Your task to perform on an android device: See recent photos Image 0: 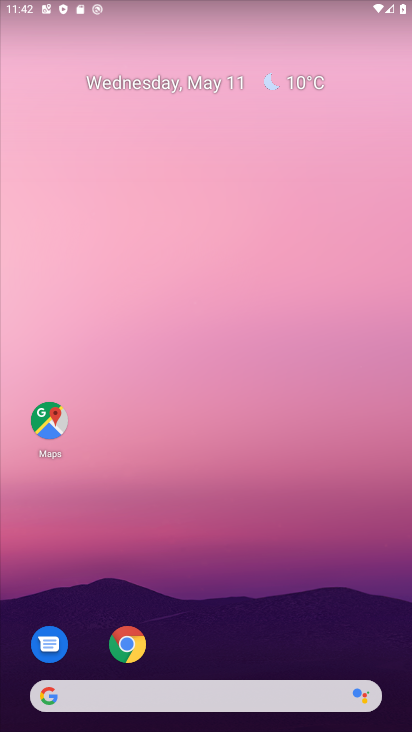
Step 0: press home button
Your task to perform on an android device: See recent photos Image 1: 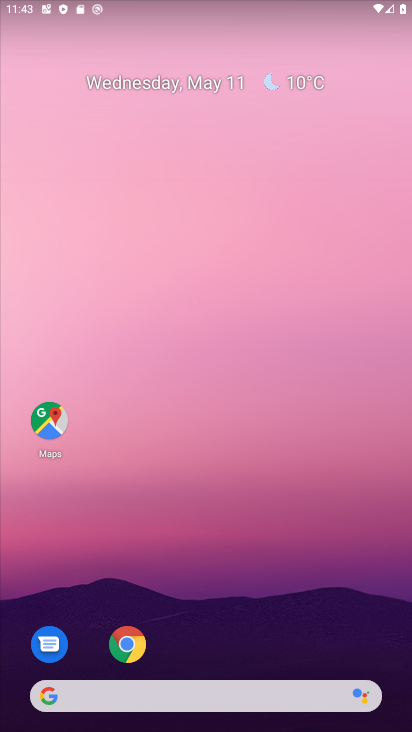
Step 1: drag from (311, 585) to (300, 150)
Your task to perform on an android device: See recent photos Image 2: 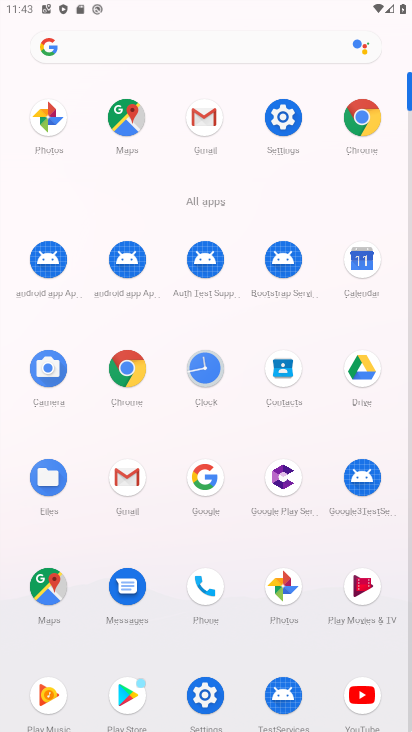
Step 2: click (46, 105)
Your task to perform on an android device: See recent photos Image 3: 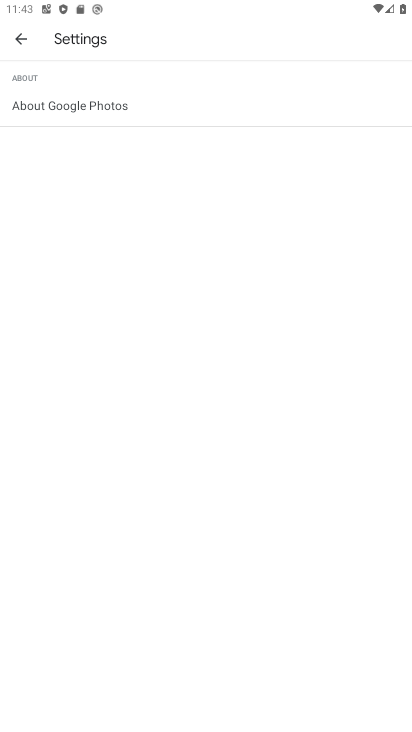
Step 3: click (19, 45)
Your task to perform on an android device: See recent photos Image 4: 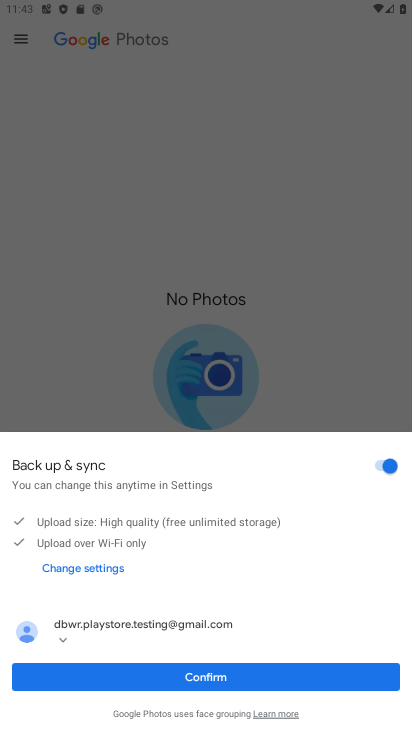
Step 4: click (26, 350)
Your task to perform on an android device: See recent photos Image 5: 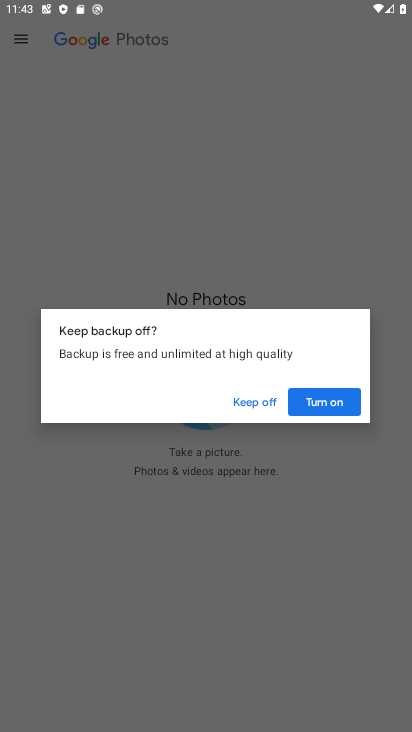
Step 5: click (307, 400)
Your task to perform on an android device: See recent photos Image 6: 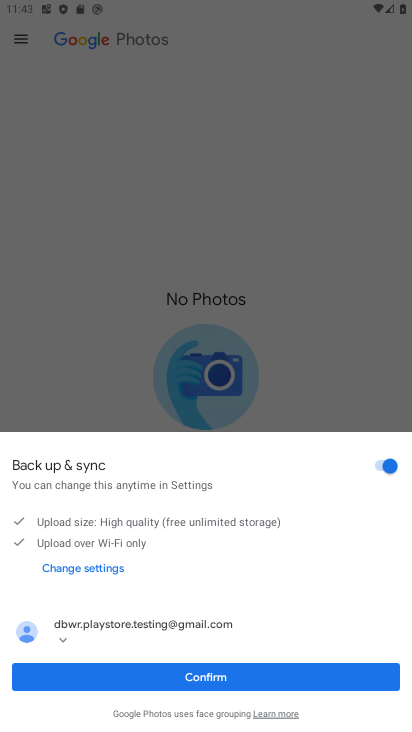
Step 6: click (356, 686)
Your task to perform on an android device: See recent photos Image 7: 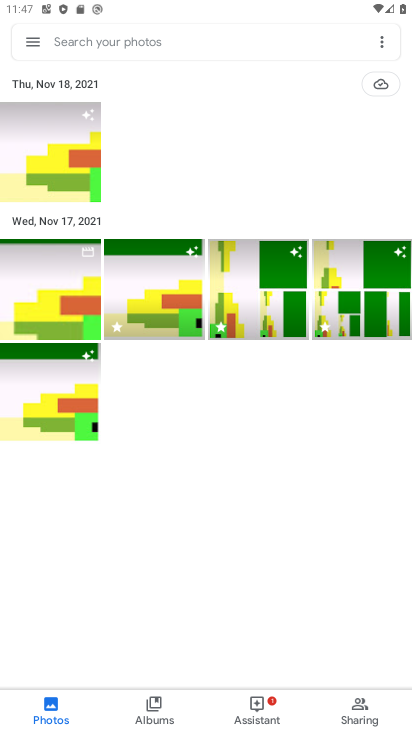
Step 7: task complete